Your task to perform on an android device: What's on my calendar tomorrow? Image 0: 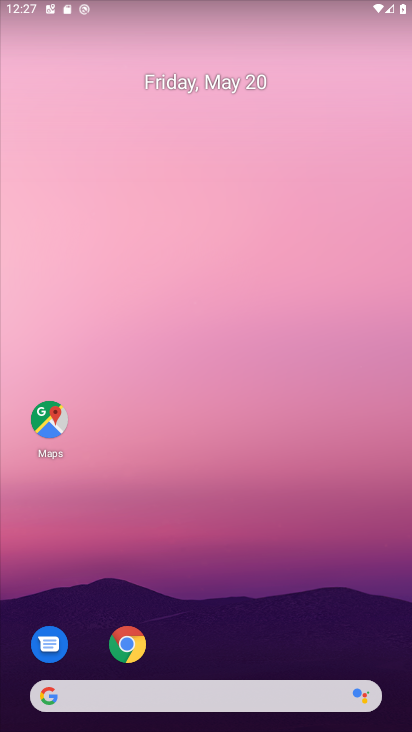
Step 0: drag from (232, 677) to (216, 341)
Your task to perform on an android device: What's on my calendar tomorrow? Image 1: 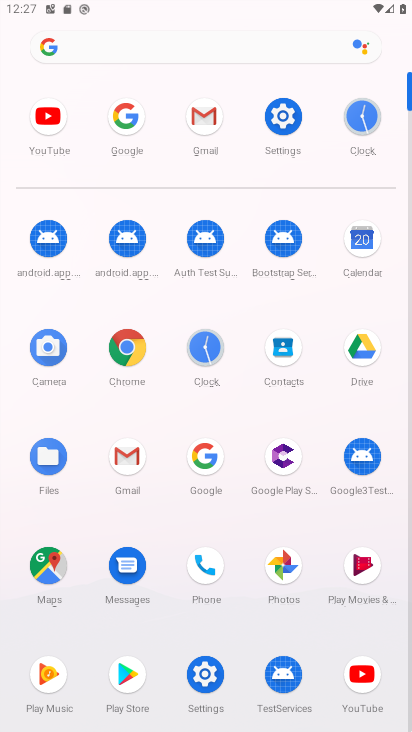
Step 1: click (356, 248)
Your task to perform on an android device: What's on my calendar tomorrow? Image 2: 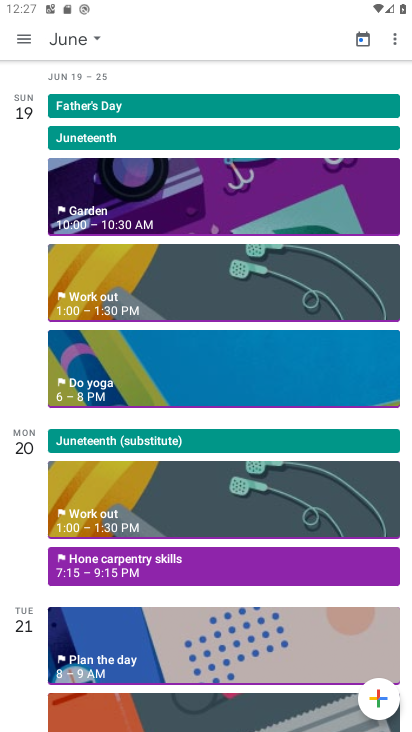
Step 2: click (122, 666)
Your task to perform on an android device: What's on my calendar tomorrow? Image 3: 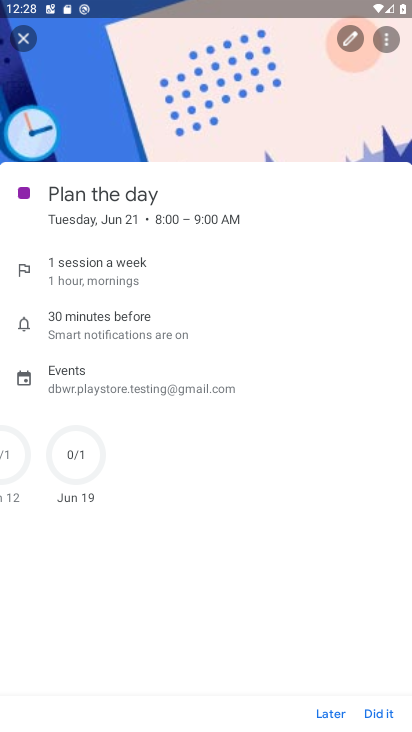
Step 3: click (20, 33)
Your task to perform on an android device: What's on my calendar tomorrow? Image 4: 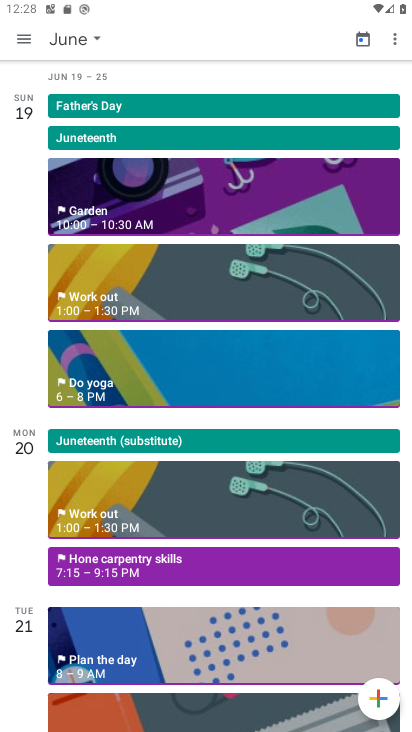
Step 4: click (84, 32)
Your task to perform on an android device: What's on my calendar tomorrow? Image 5: 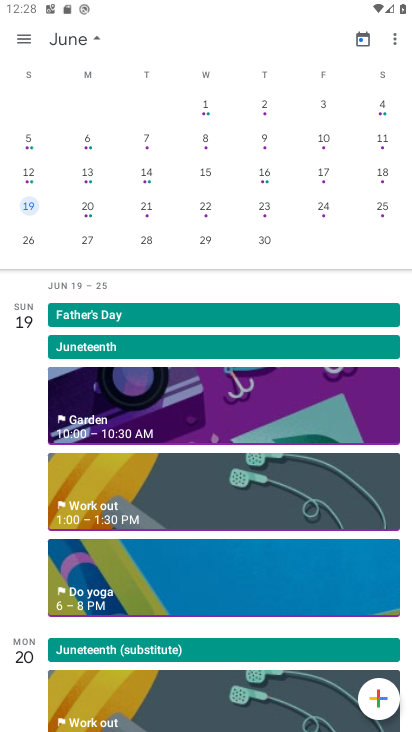
Step 5: drag from (53, 161) to (398, 173)
Your task to perform on an android device: What's on my calendar tomorrow? Image 6: 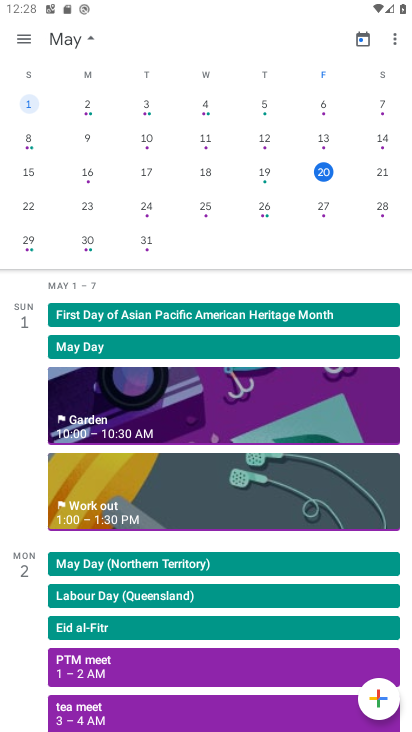
Step 6: click (380, 175)
Your task to perform on an android device: What's on my calendar tomorrow? Image 7: 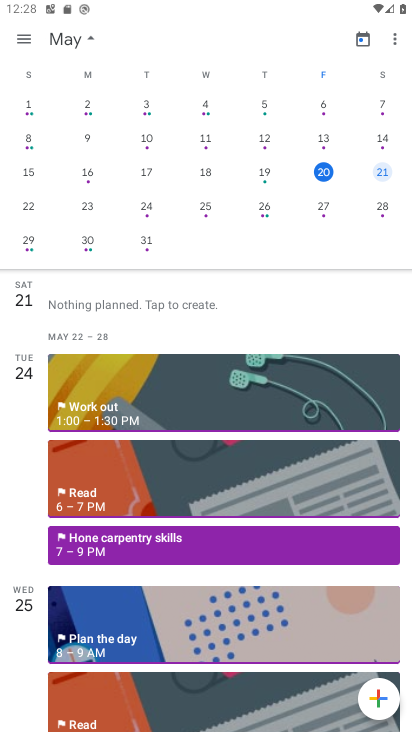
Step 7: click (106, 302)
Your task to perform on an android device: What's on my calendar tomorrow? Image 8: 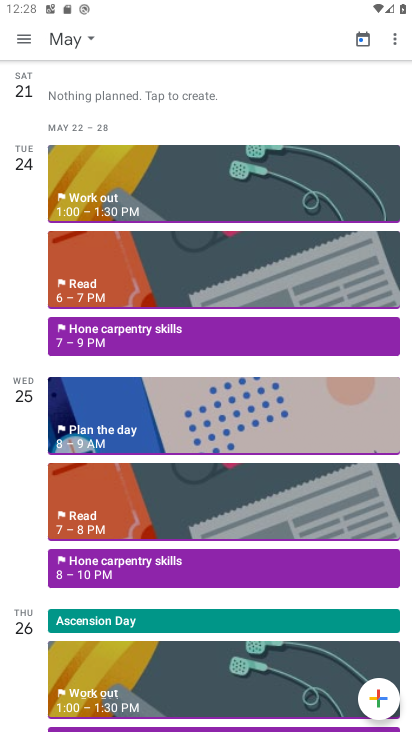
Step 8: click (151, 103)
Your task to perform on an android device: What's on my calendar tomorrow? Image 9: 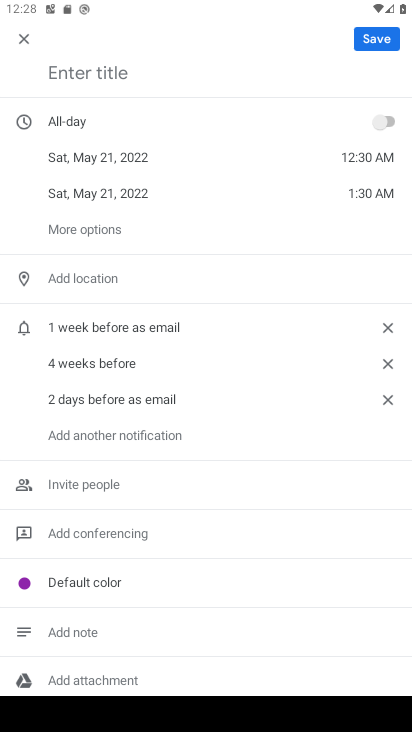
Step 9: task complete